Your task to perform on an android device: turn off sleep mode Image 0: 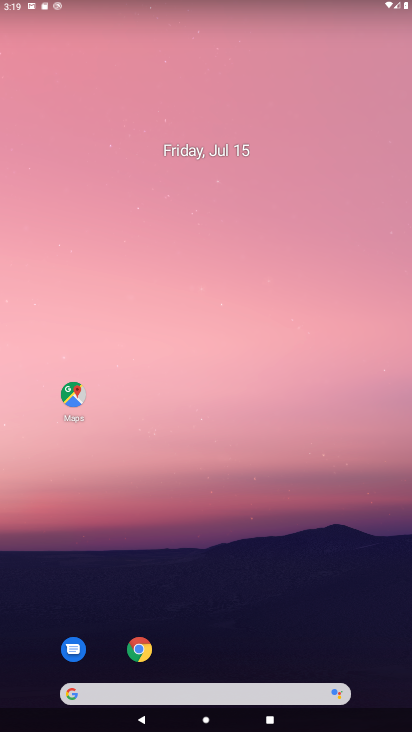
Step 0: drag from (381, 656) to (328, 85)
Your task to perform on an android device: turn off sleep mode Image 1: 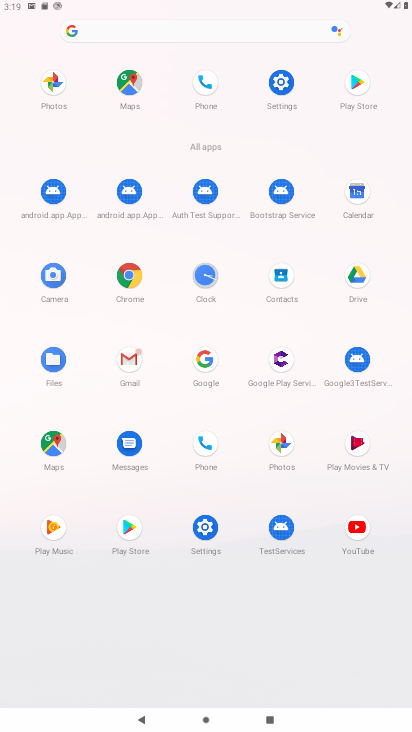
Step 1: click (206, 526)
Your task to perform on an android device: turn off sleep mode Image 2: 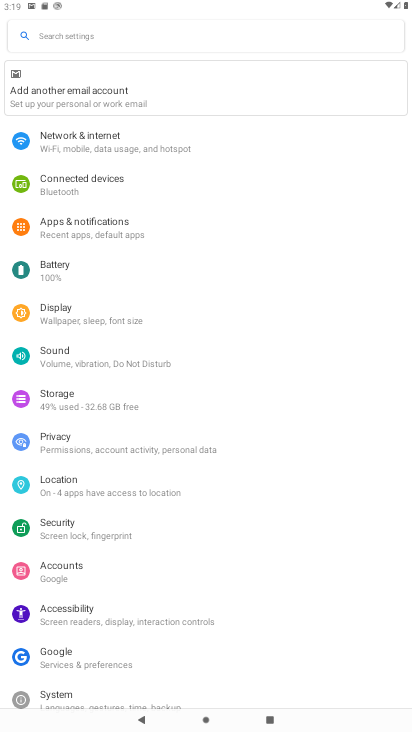
Step 2: drag from (224, 664) to (227, 419)
Your task to perform on an android device: turn off sleep mode Image 3: 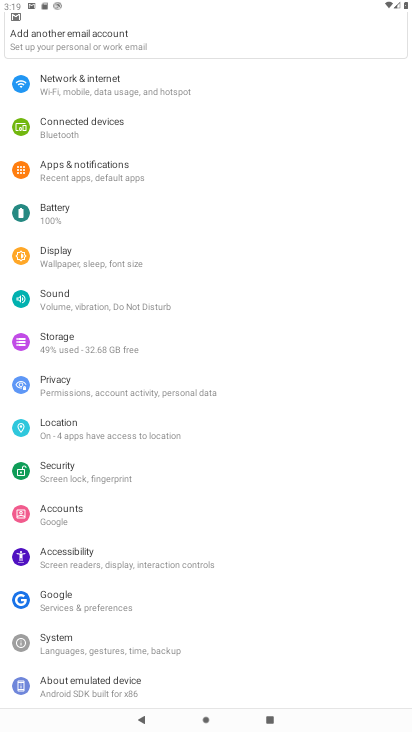
Step 3: click (55, 254)
Your task to perform on an android device: turn off sleep mode Image 4: 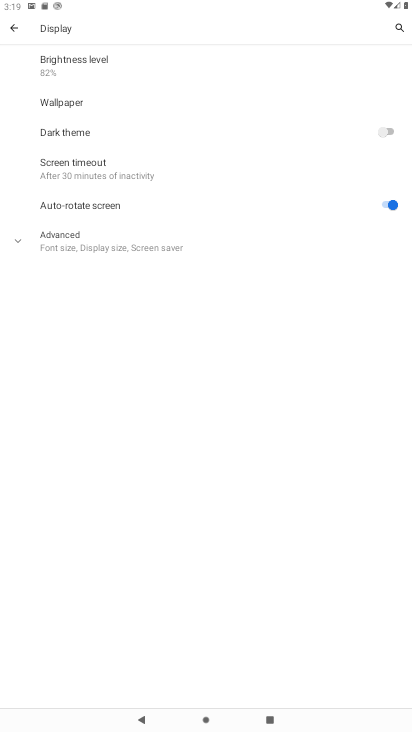
Step 4: click (20, 244)
Your task to perform on an android device: turn off sleep mode Image 5: 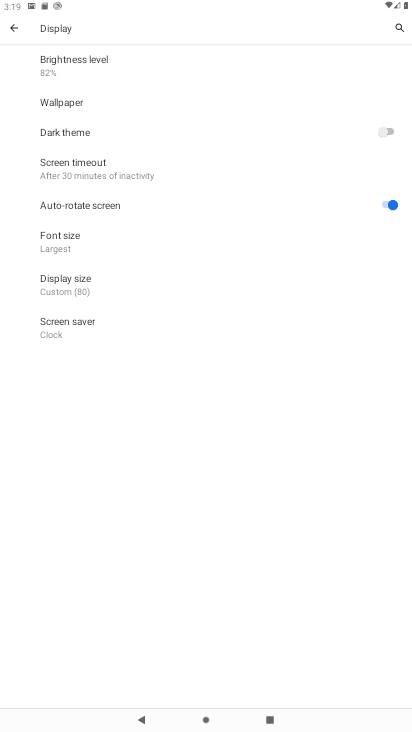
Step 5: task complete